Your task to perform on an android device: turn on improve location accuracy Image 0: 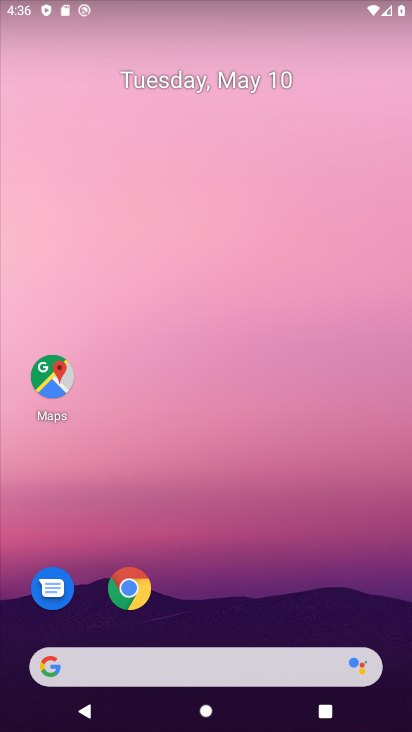
Step 0: drag from (253, 562) to (232, 110)
Your task to perform on an android device: turn on improve location accuracy Image 1: 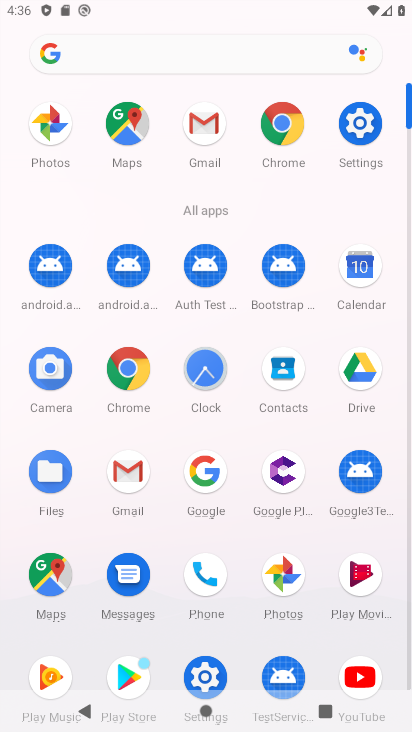
Step 1: click (349, 123)
Your task to perform on an android device: turn on improve location accuracy Image 2: 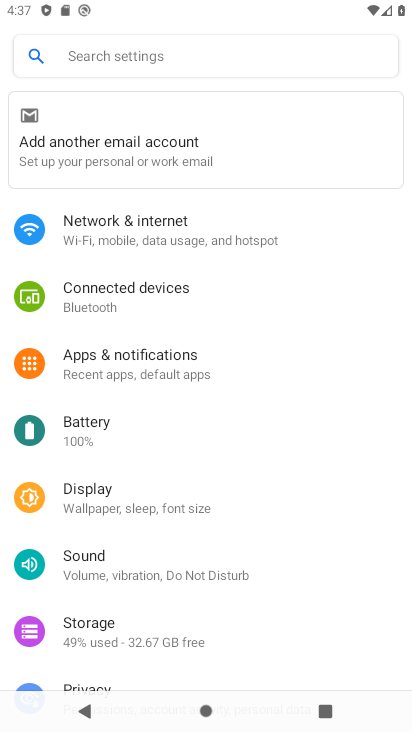
Step 2: drag from (174, 614) to (168, 472)
Your task to perform on an android device: turn on improve location accuracy Image 3: 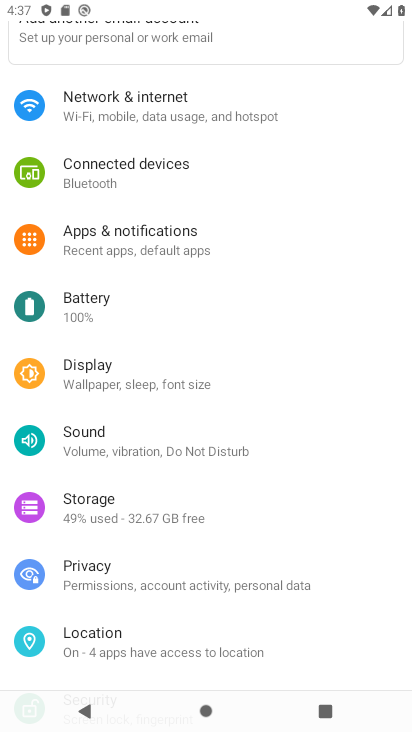
Step 3: click (175, 635)
Your task to perform on an android device: turn on improve location accuracy Image 4: 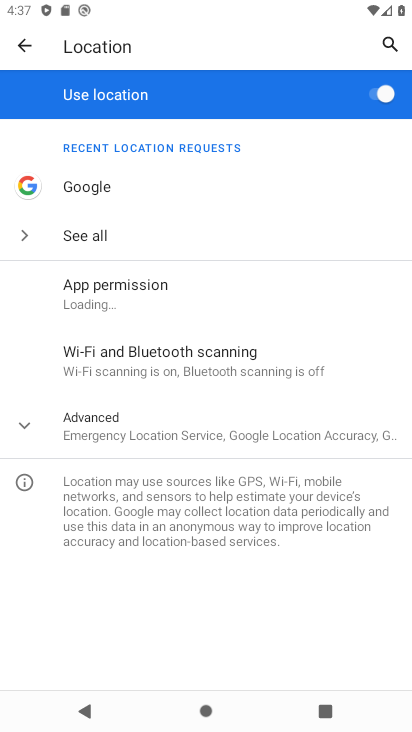
Step 4: click (26, 420)
Your task to perform on an android device: turn on improve location accuracy Image 5: 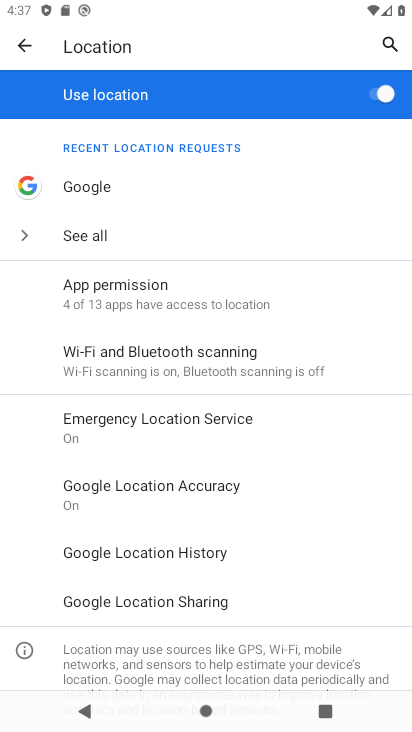
Step 5: task complete